Your task to perform on an android device: Open Google Maps Image 0: 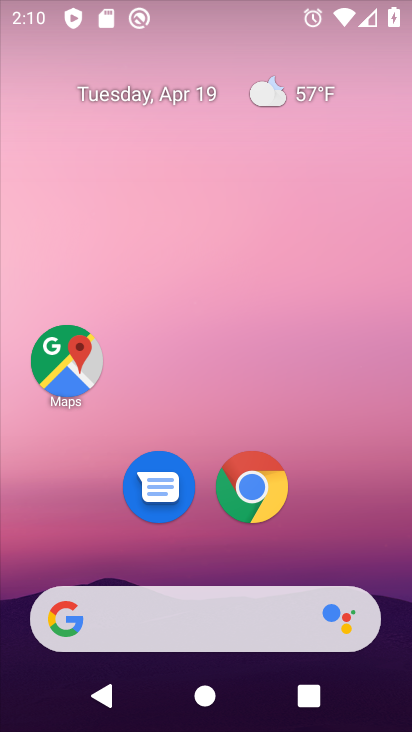
Step 0: drag from (353, 461) to (350, 108)
Your task to perform on an android device: Open Google Maps Image 1: 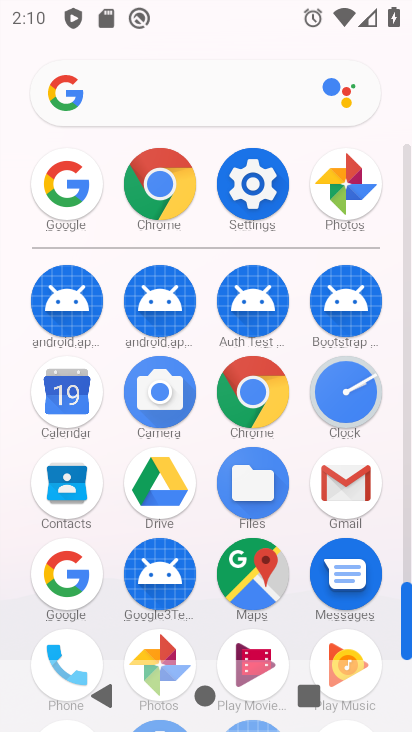
Step 1: click (268, 575)
Your task to perform on an android device: Open Google Maps Image 2: 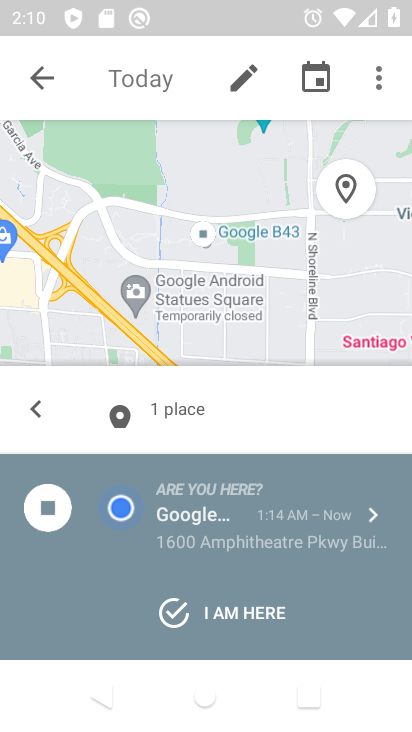
Step 2: click (47, 76)
Your task to perform on an android device: Open Google Maps Image 3: 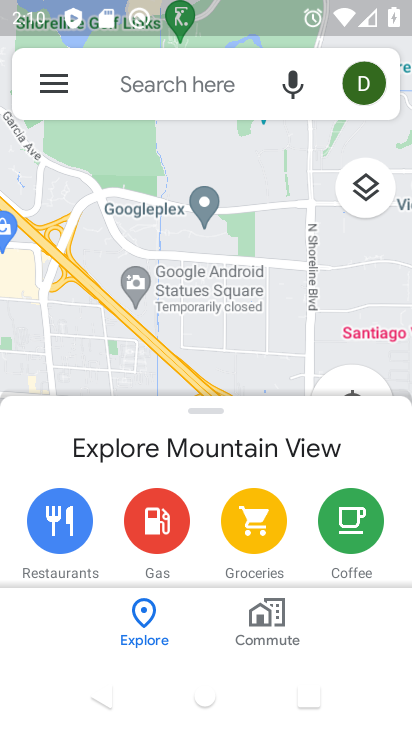
Step 3: task complete